Your task to perform on an android device: change the clock display to digital Image 0: 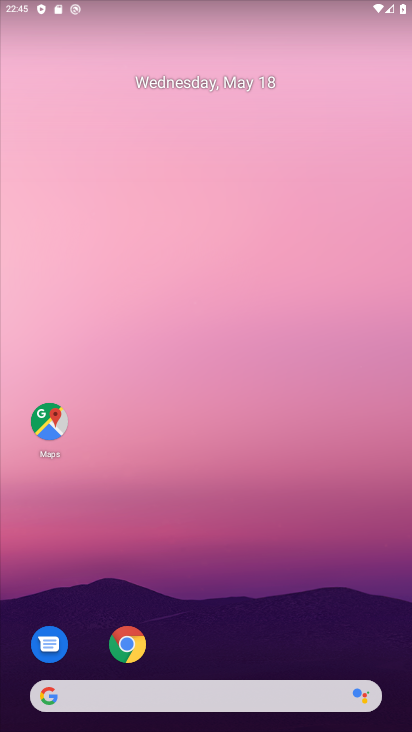
Step 0: drag from (327, 554) to (311, 94)
Your task to perform on an android device: change the clock display to digital Image 1: 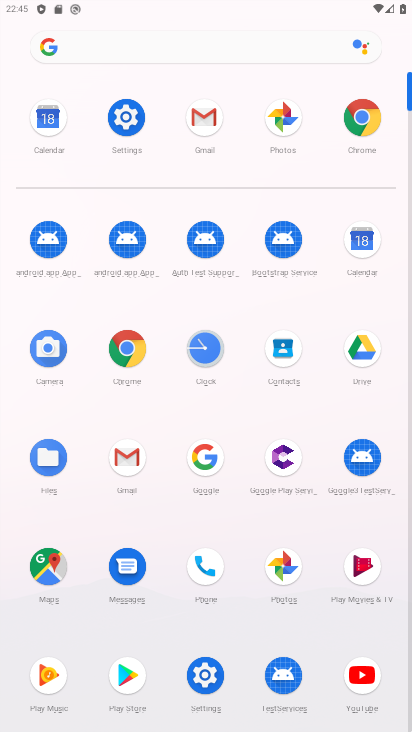
Step 1: click (204, 348)
Your task to perform on an android device: change the clock display to digital Image 2: 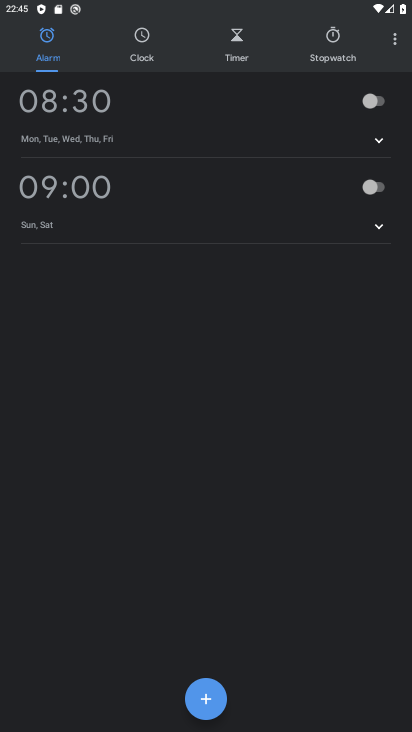
Step 2: click (396, 30)
Your task to perform on an android device: change the clock display to digital Image 3: 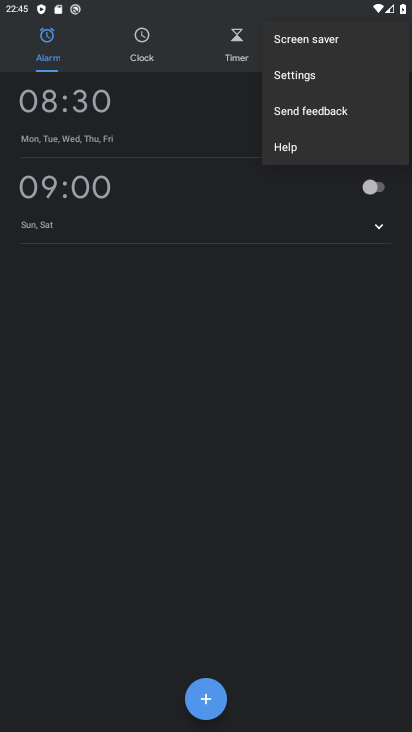
Step 3: click (300, 83)
Your task to perform on an android device: change the clock display to digital Image 4: 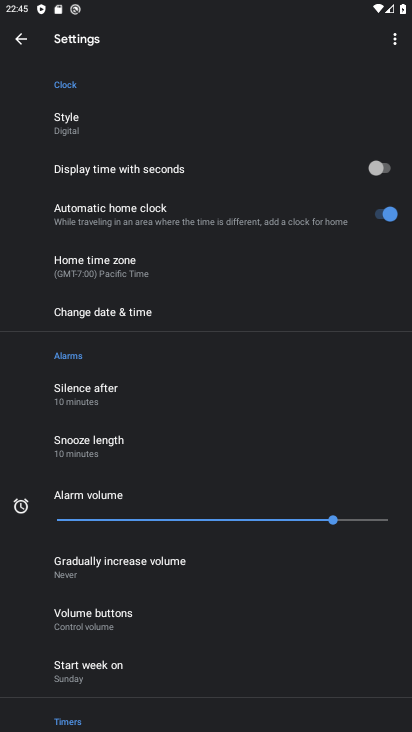
Step 4: click (80, 120)
Your task to perform on an android device: change the clock display to digital Image 5: 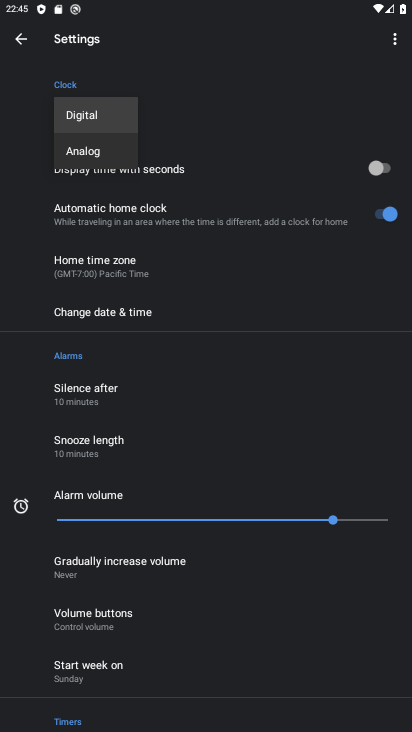
Step 5: task complete